Your task to perform on an android device: Show me popular games on the Play Store Image 0: 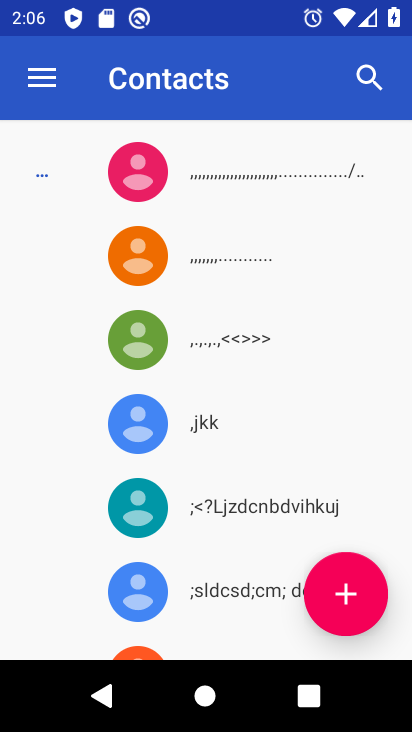
Step 0: press home button
Your task to perform on an android device: Show me popular games on the Play Store Image 1: 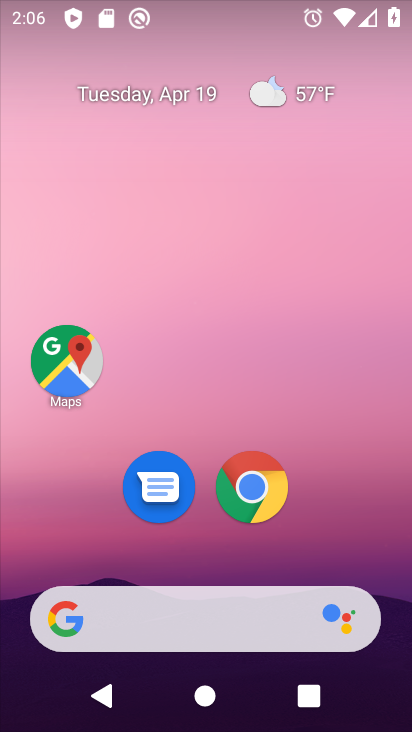
Step 1: drag from (378, 474) to (372, 95)
Your task to perform on an android device: Show me popular games on the Play Store Image 2: 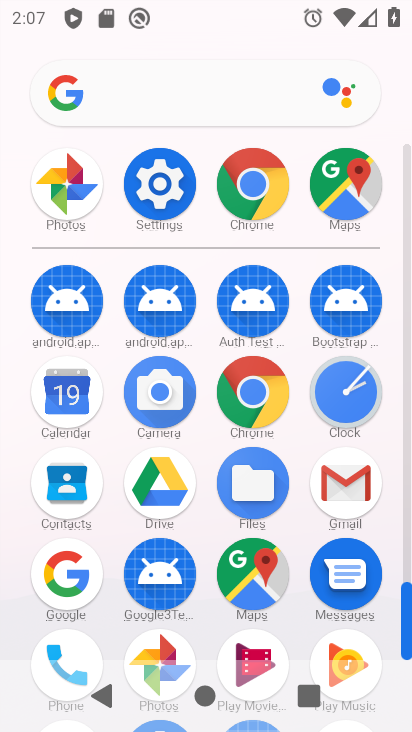
Step 2: drag from (198, 610) to (211, 381)
Your task to perform on an android device: Show me popular games on the Play Store Image 3: 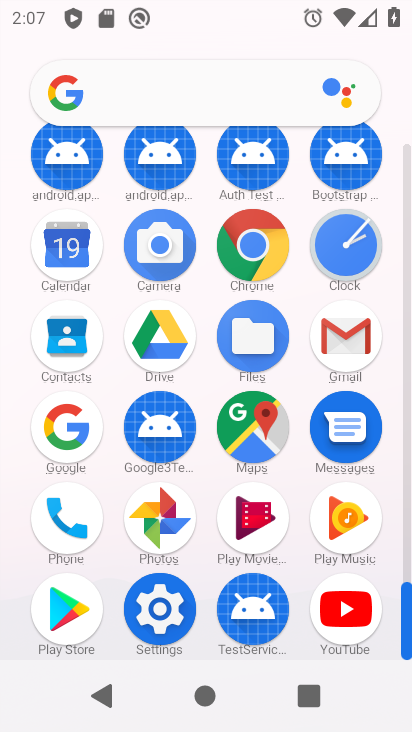
Step 3: click (70, 603)
Your task to perform on an android device: Show me popular games on the Play Store Image 4: 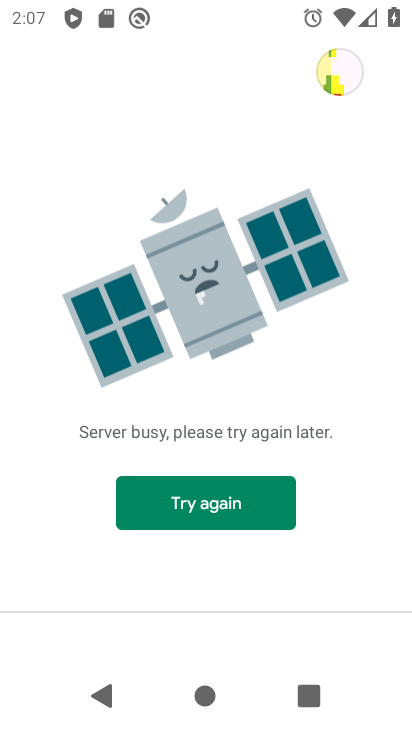
Step 4: task complete